Your task to perform on an android device: Open Youtube and go to "Your channel" Image 0: 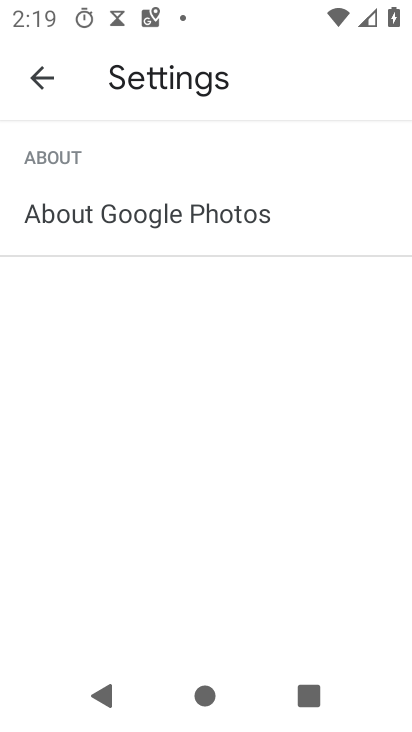
Step 0: press home button
Your task to perform on an android device: Open Youtube and go to "Your channel" Image 1: 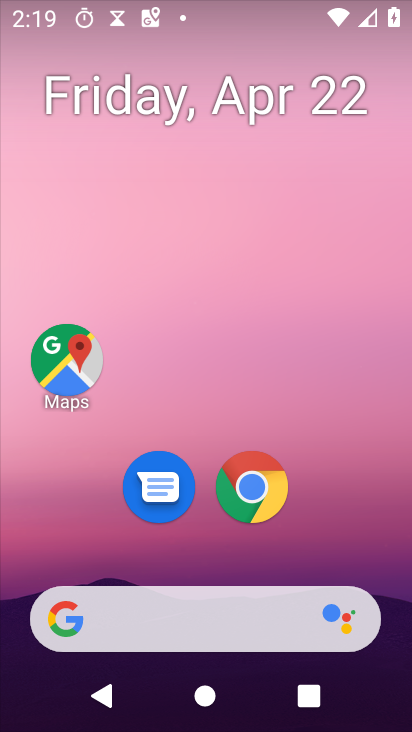
Step 1: drag from (178, 614) to (298, 200)
Your task to perform on an android device: Open Youtube and go to "Your channel" Image 2: 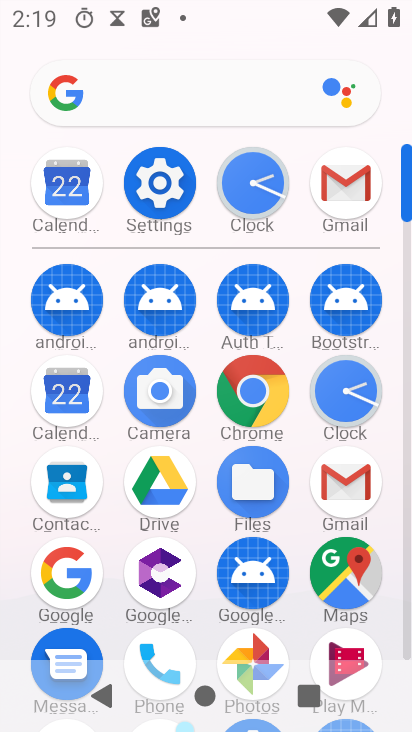
Step 2: drag from (206, 593) to (343, 161)
Your task to perform on an android device: Open Youtube and go to "Your channel" Image 3: 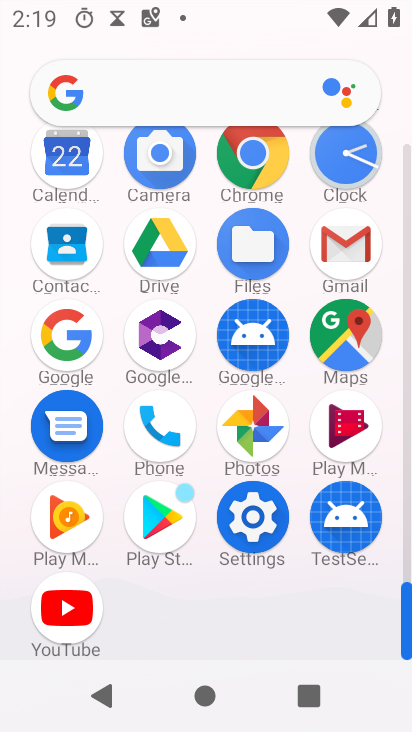
Step 3: click (66, 623)
Your task to perform on an android device: Open Youtube and go to "Your channel" Image 4: 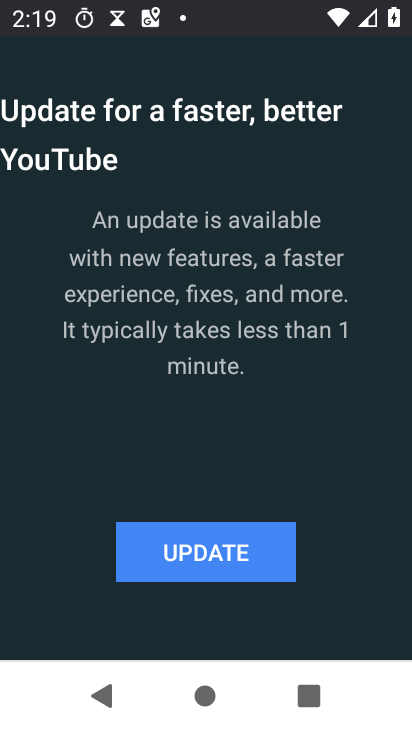
Step 4: click (192, 552)
Your task to perform on an android device: Open Youtube and go to "Your channel" Image 5: 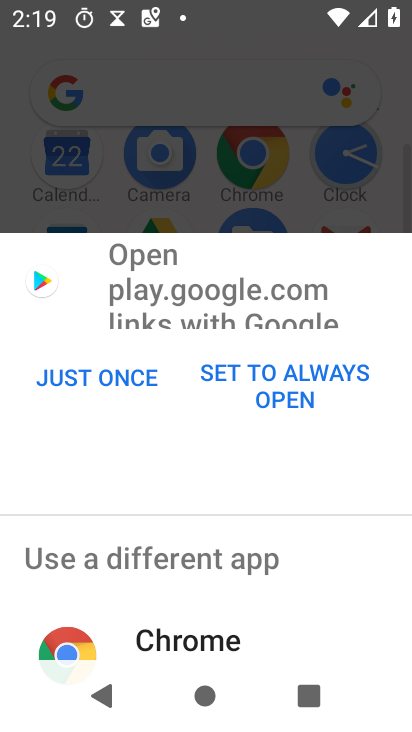
Step 5: click (117, 381)
Your task to perform on an android device: Open Youtube and go to "Your channel" Image 6: 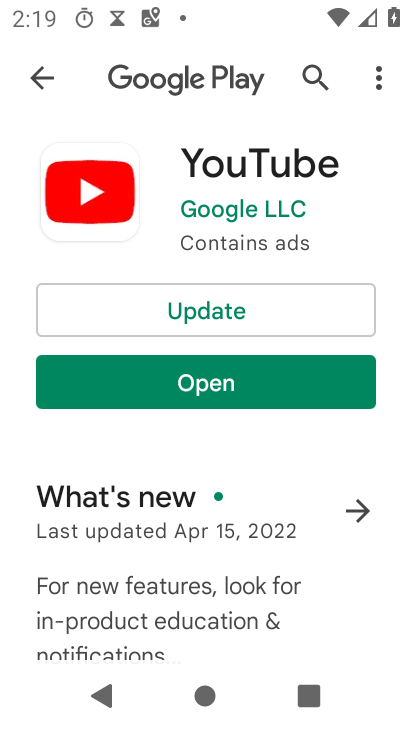
Step 6: click (192, 309)
Your task to perform on an android device: Open Youtube and go to "Your channel" Image 7: 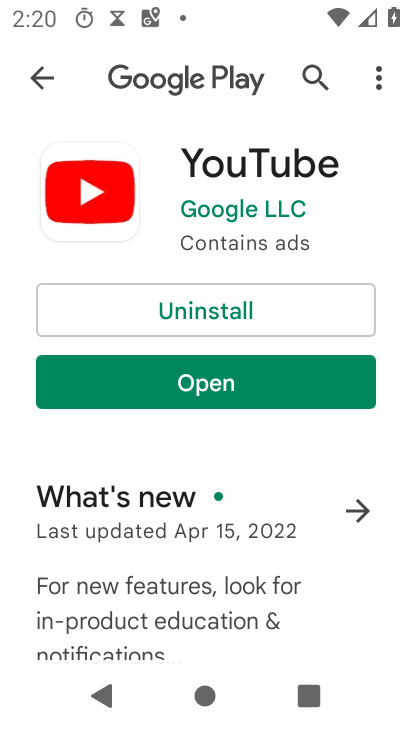
Step 7: click (201, 378)
Your task to perform on an android device: Open Youtube and go to "Your channel" Image 8: 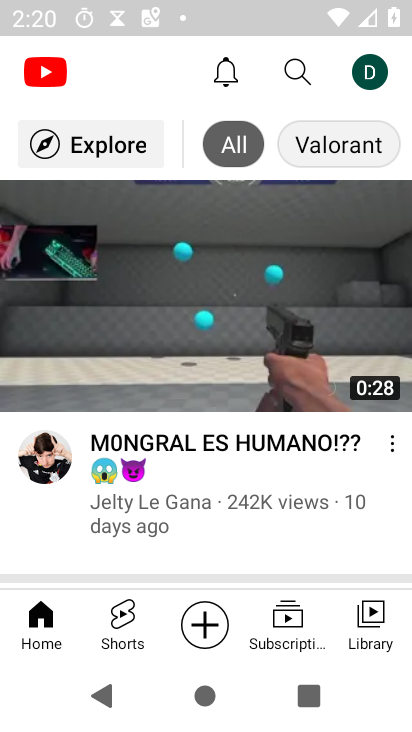
Step 8: click (370, 75)
Your task to perform on an android device: Open Youtube and go to "Your channel" Image 9: 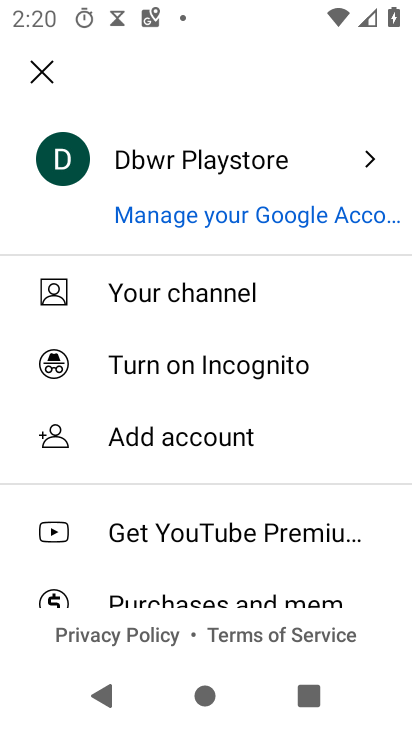
Step 9: click (152, 292)
Your task to perform on an android device: Open Youtube and go to "Your channel" Image 10: 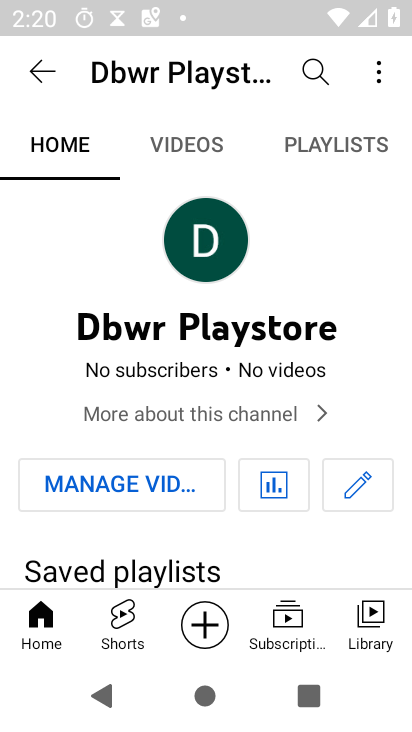
Step 10: task complete